Your task to perform on an android device: Open ESPN.com Image 0: 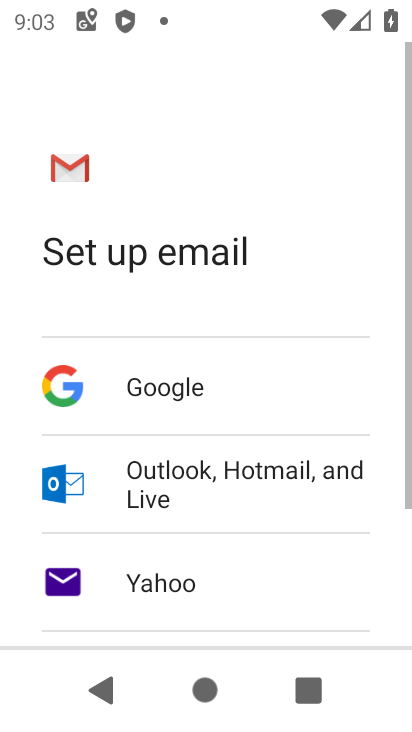
Step 0: press home button
Your task to perform on an android device: Open ESPN.com Image 1: 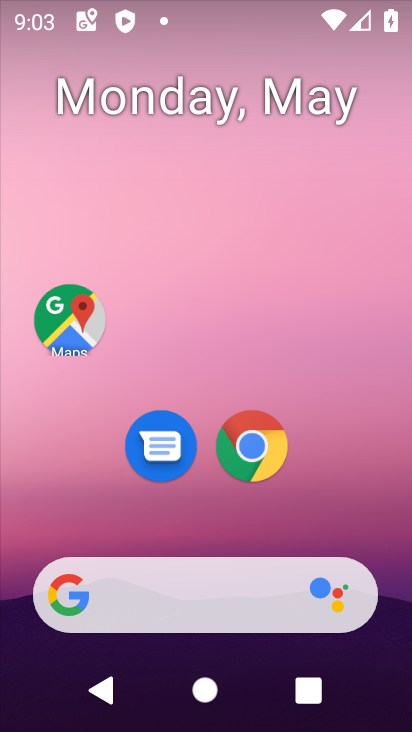
Step 1: click (249, 432)
Your task to perform on an android device: Open ESPN.com Image 2: 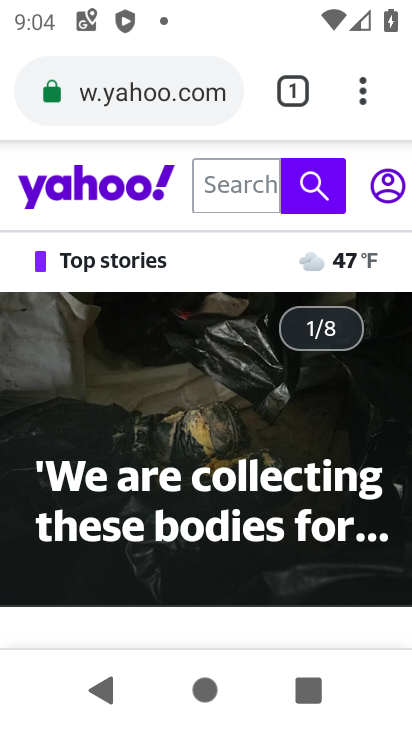
Step 2: click (291, 86)
Your task to perform on an android device: Open ESPN.com Image 3: 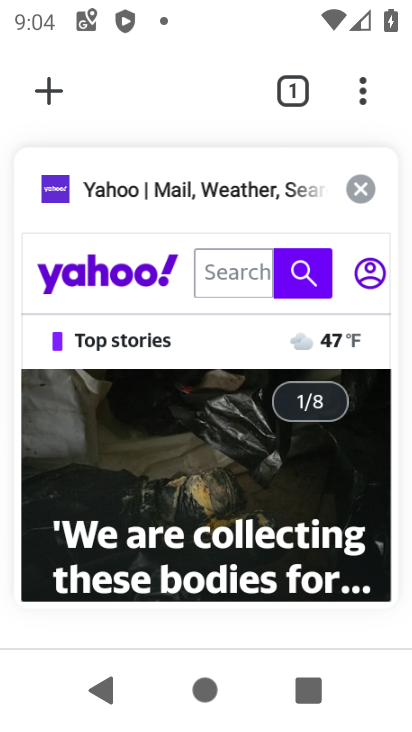
Step 3: click (356, 186)
Your task to perform on an android device: Open ESPN.com Image 4: 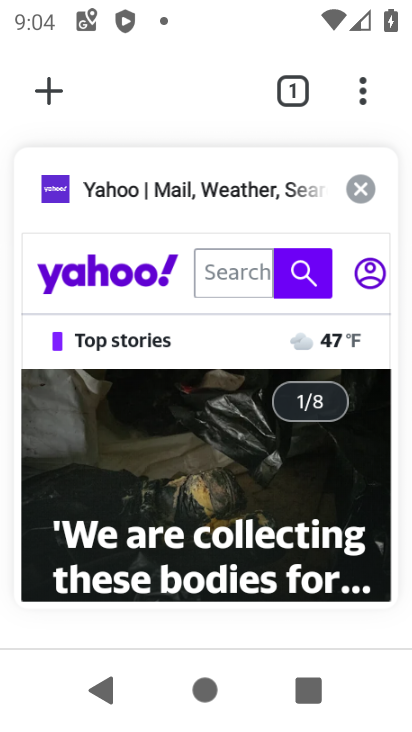
Step 4: click (357, 185)
Your task to perform on an android device: Open ESPN.com Image 5: 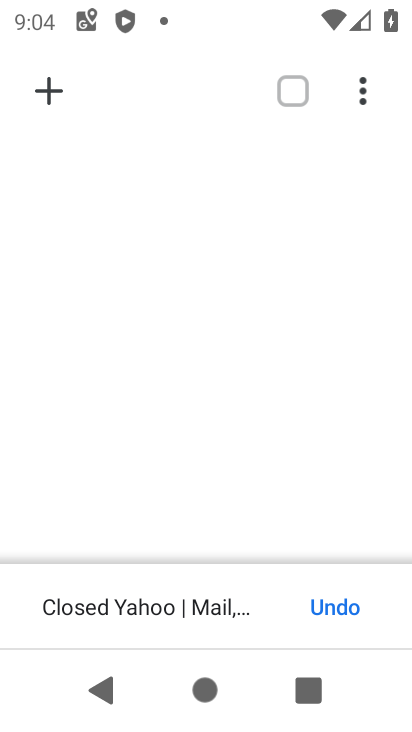
Step 5: click (49, 96)
Your task to perform on an android device: Open ESPN.com Image 6: 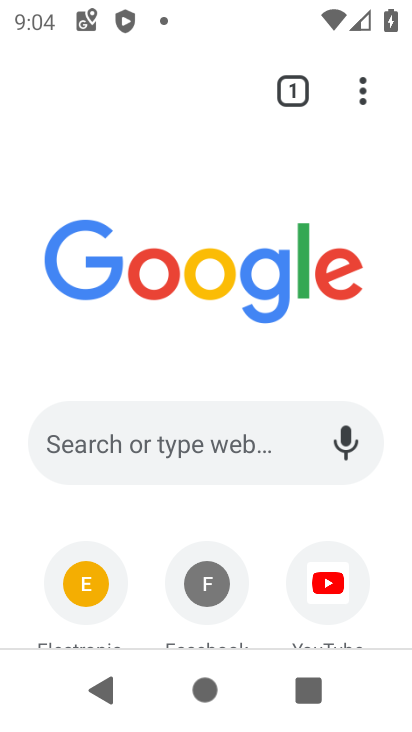
Step 6: click (182, 442)
Your task to perform on an android device: Open ESPN.com Image 7: 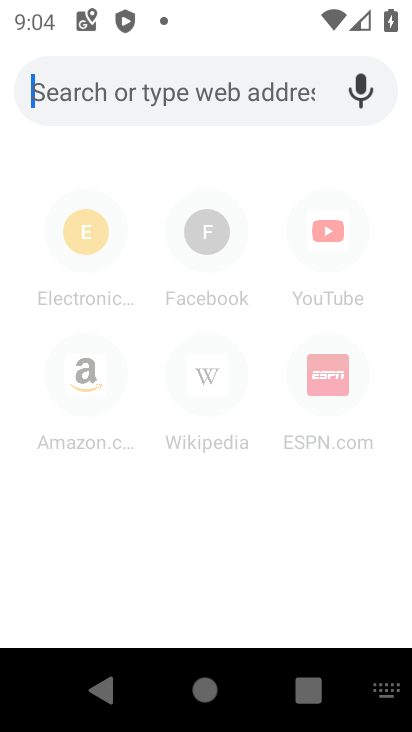
Step 7: type "espn"
Your task to perform on an android device: Open ESPN.com Image 8: 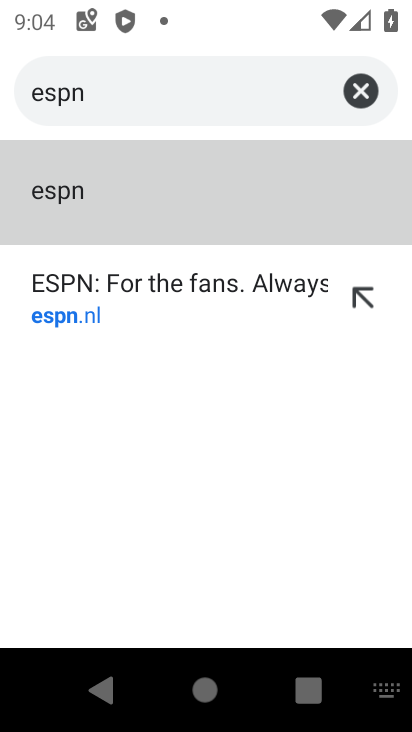
Step 8: click (124, 303)
Your task to perform on an android device: Open ESPN.com Image 9: 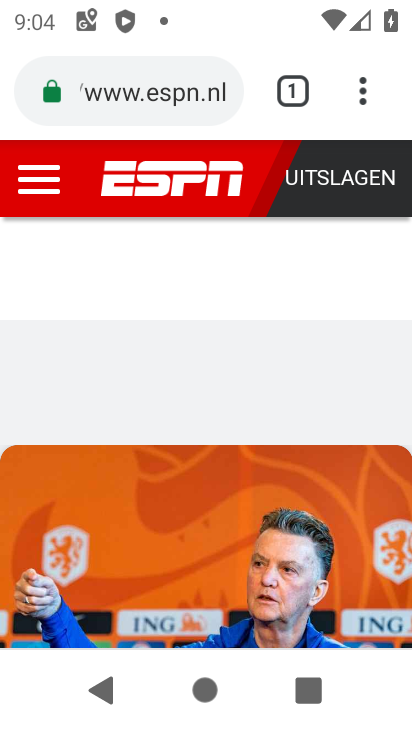
Step 9: drag from (226, 588) to (236, 94)
Your task to perform on an android device: Open ESPN.com Image 10: 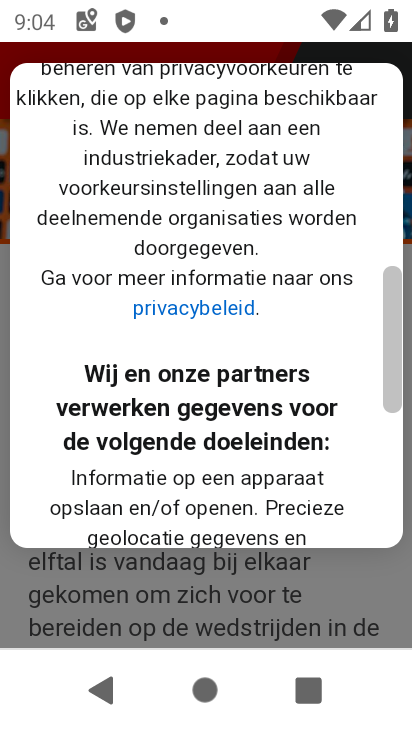
Step 10: drag from (252, 592) to (258, 192)
Your task to perform on an android device: Open ESPN.com Image 11: 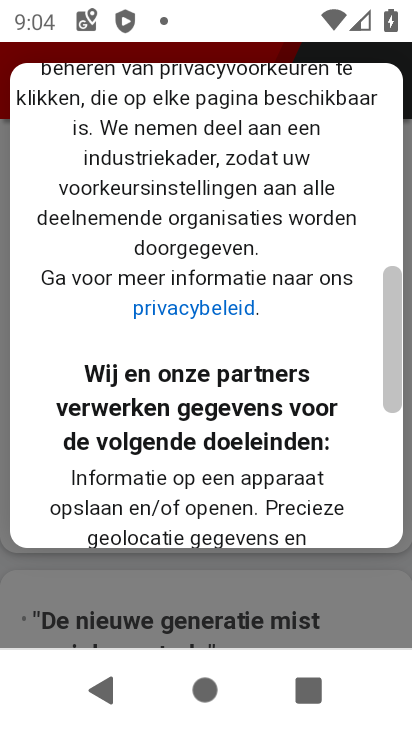
Step 11: drag from (302, 435) to (293, 100)
Your task to perform on an android device: Open ESPN.com Image 12: 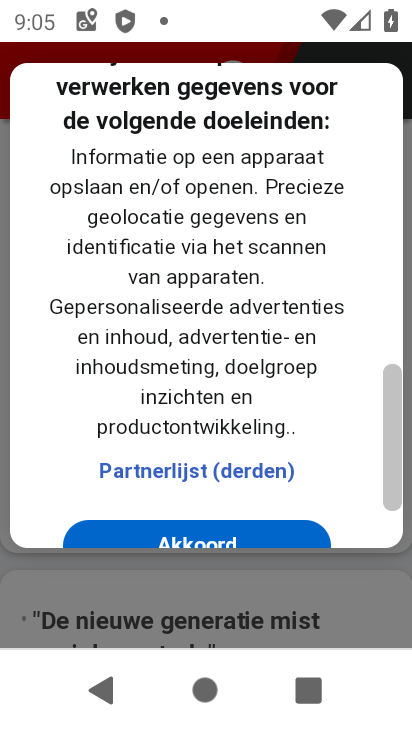
Step 12: click (236, 530)
Your task to perform on an android device: Open ESPN.com Image 13: 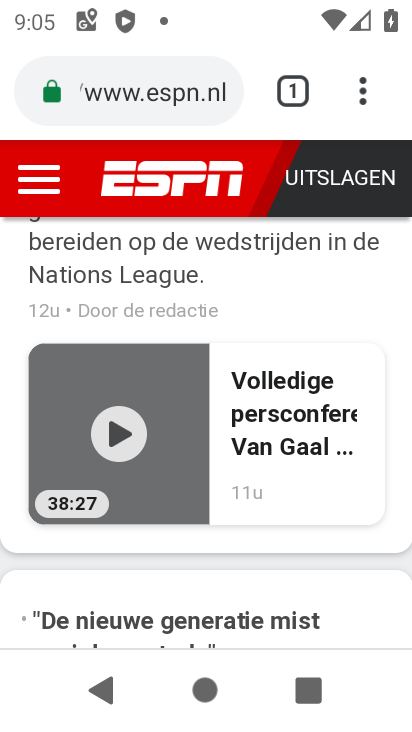
Step 13: task complete